Your task to perform on an android device: toggle sleep mode Image 0: 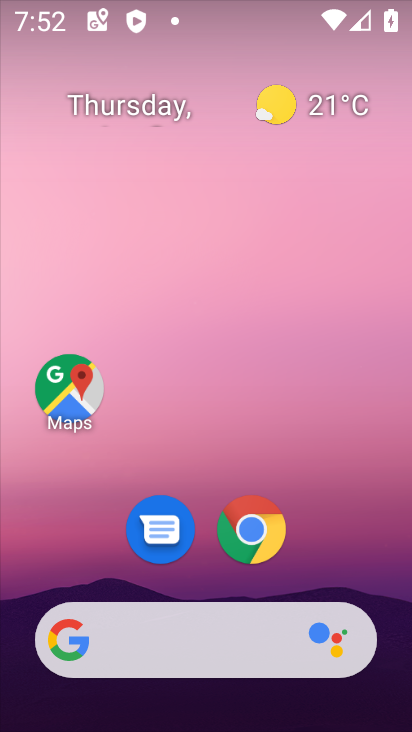
Step 0: drag from (300, 717) to (239, 69)
Your task to perform on an android device: toggle sleep mode Image 1: 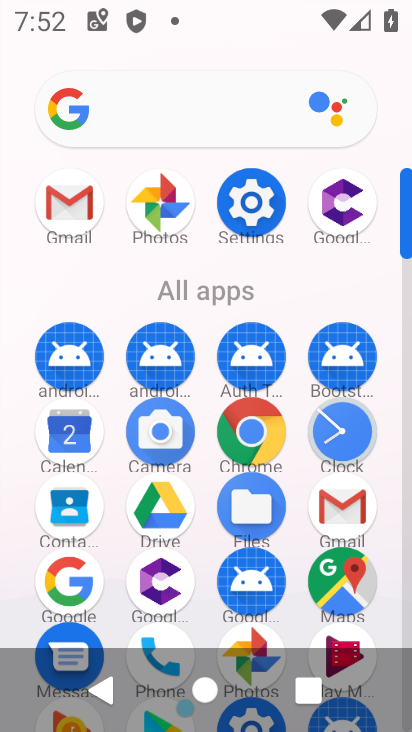
Step 1: click (241, 191)
Your task to perform on an android device: toggle sleep mode Image 2: 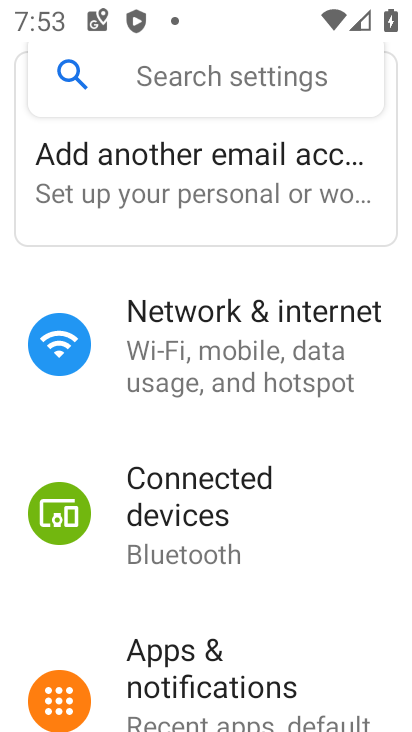
Step 2: drag from (329, 678) to (253, 59)
Your task to perform on an android device: toggle sleep mode Image 3: 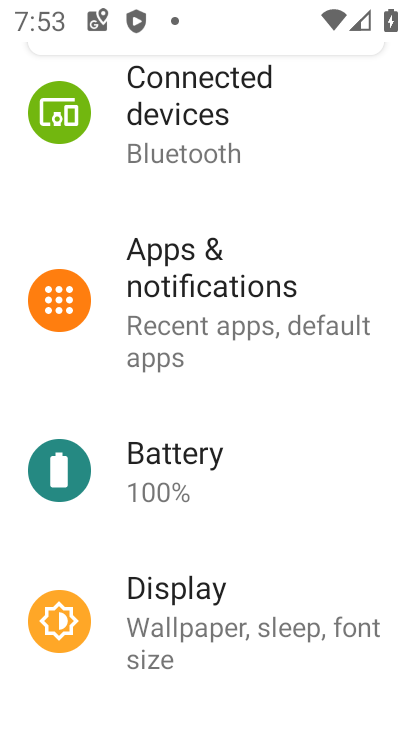
Step 3: click (249, 594)
Your task to perform on an android device: toggle sleep mode Image 4: 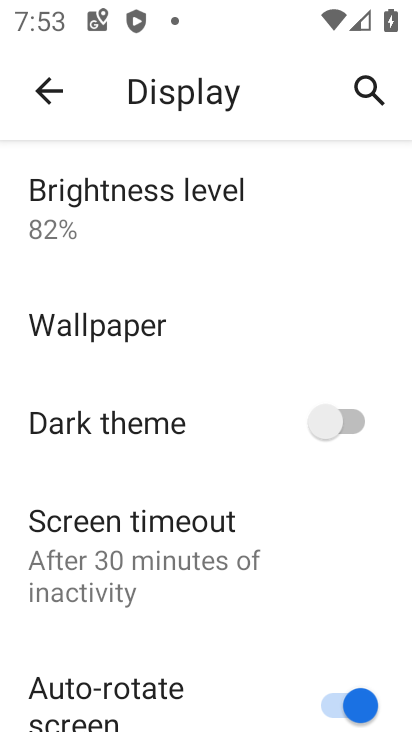
Step 4: task complete